Your task to perform on an android device: toggle sleep mode Image 0: 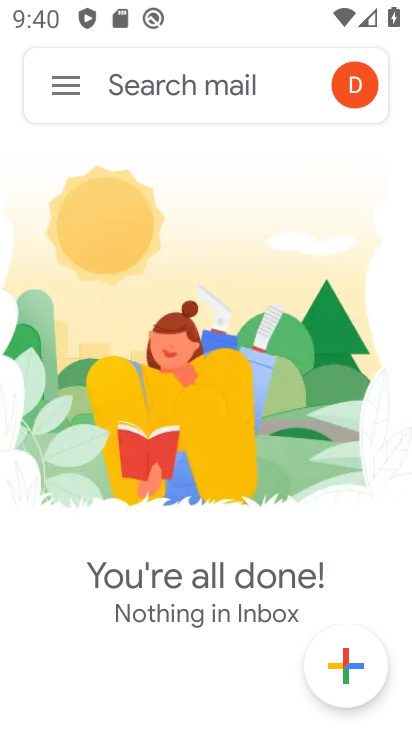
Step 0: press home button
Your task to perform on an android device: toggle sleep mode Image 1: 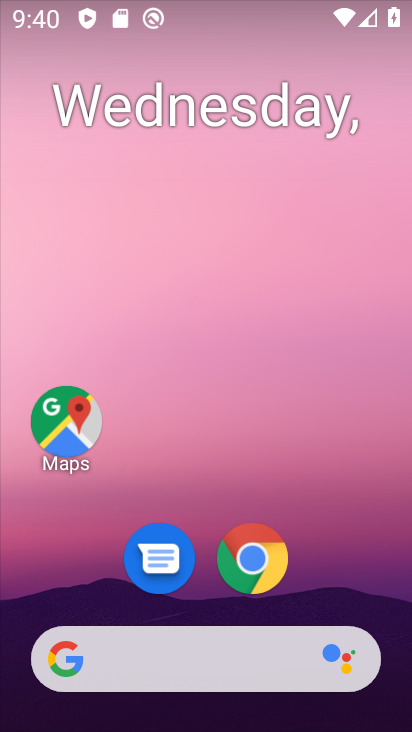
Step 1: drag from (9, 604) to (218, 154)
Your task to perform on an android device: toggle sleep mode Image 2: 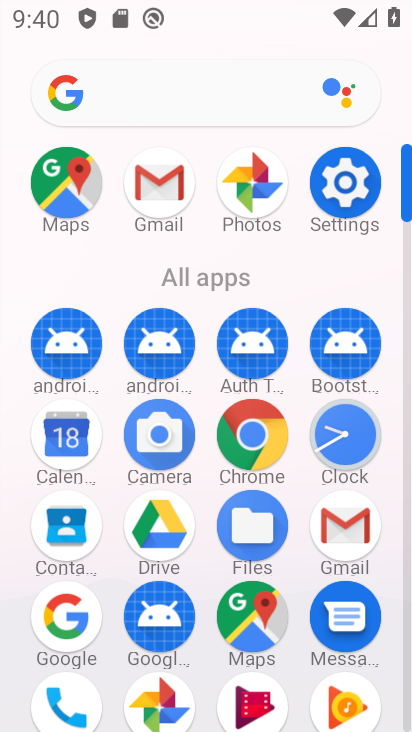
Step 2: click (345, 189)
Your task to perform on an android device: toggle sleep mode Image 3: 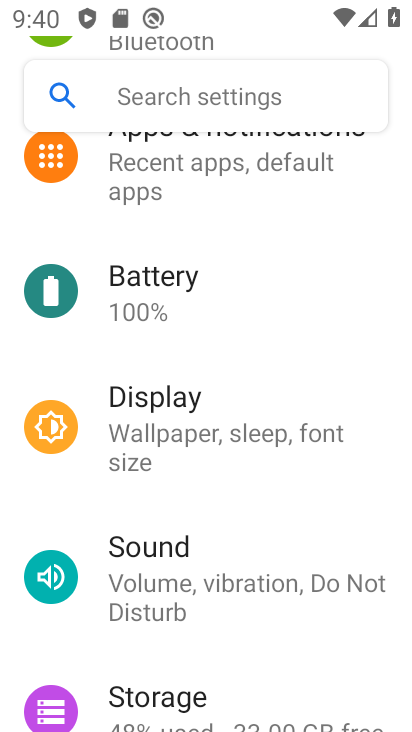
Step 3: drag from (18, 519) to (237, 193)
Your task to perform on an android device: toggle sleep mode Image 4: 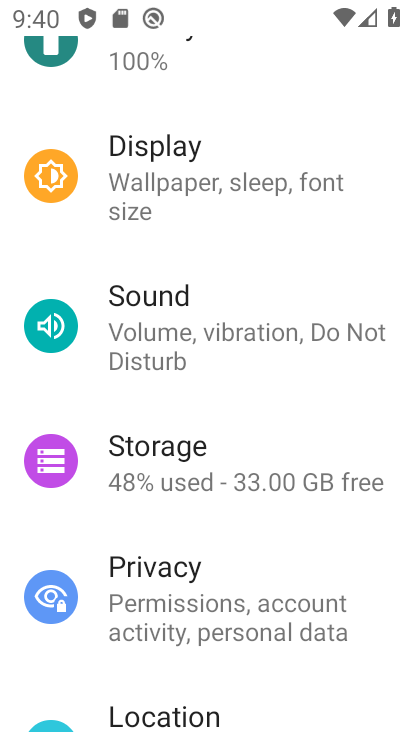
Step 4: drag from (262, 171) to (265, 415)
Your task to perform on an android device: toggle sleep mode Image 5: 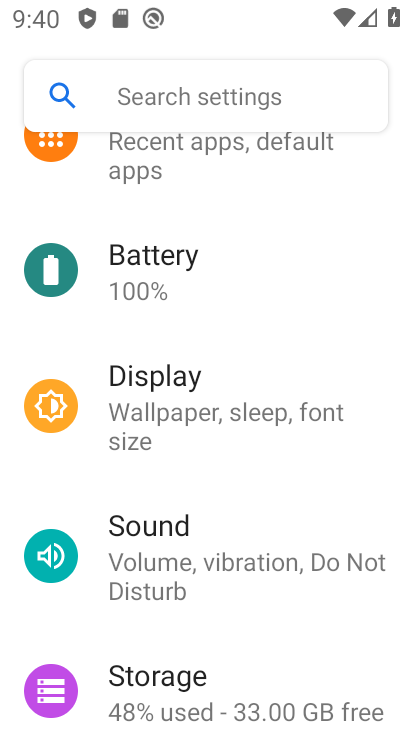
Step 5: click (265, 413)
Your task to perform on an android device: toggle sleep mode Image 6: 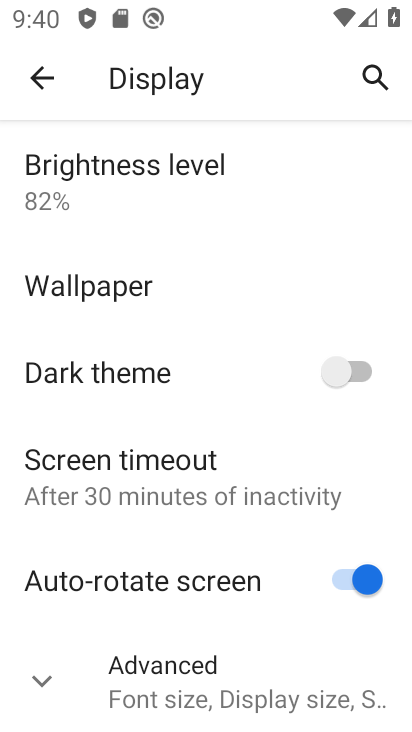
Step 6: task complete